Your task to perform on an android device: Open network settings Image 0: 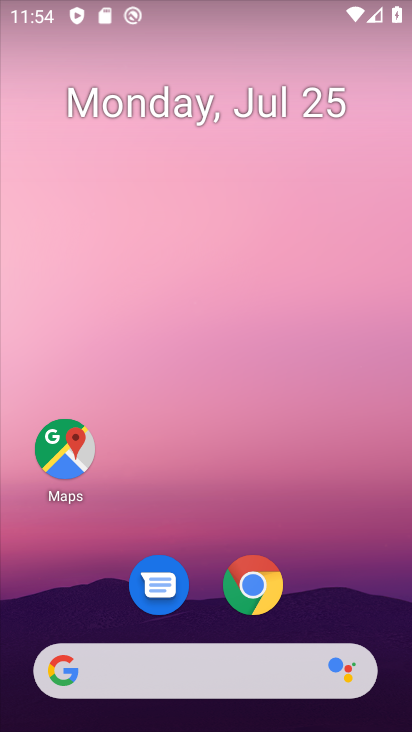
Step 0: drag from (325, 569) to (321, 39)
Your task to perform on an android device: Open network settings Image 1: 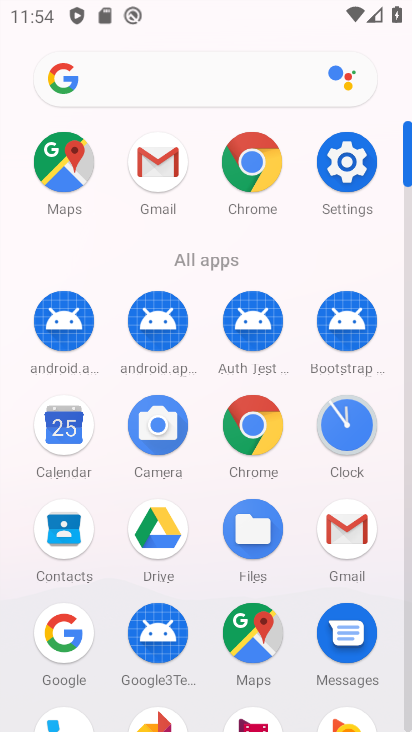
Step 1: click (341, 163)
Your task to perform on an android device: Open network settings Image 2: 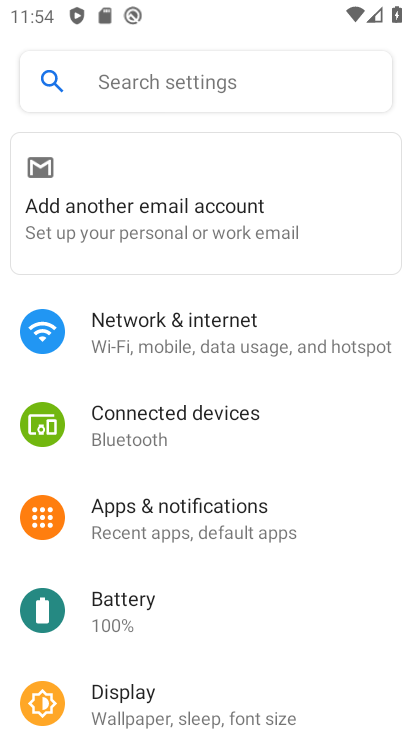
Step 2: click (252, 345)
Your task to perform on an android device: Open network settings Image 3: 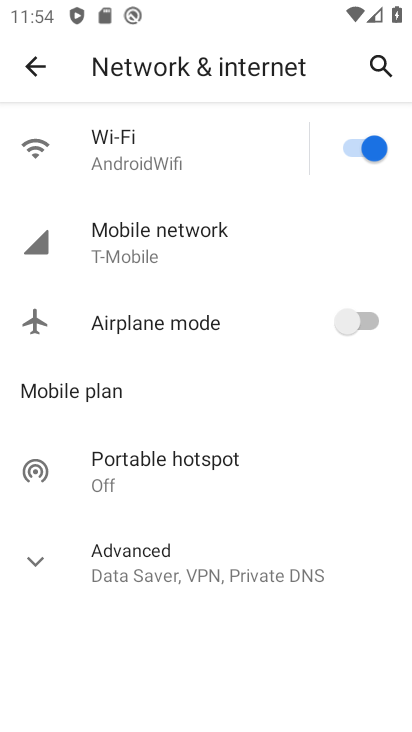
Step 3: task complete